Your task to perform on an android device: turn on priority inbox in the gmail app Image 0: 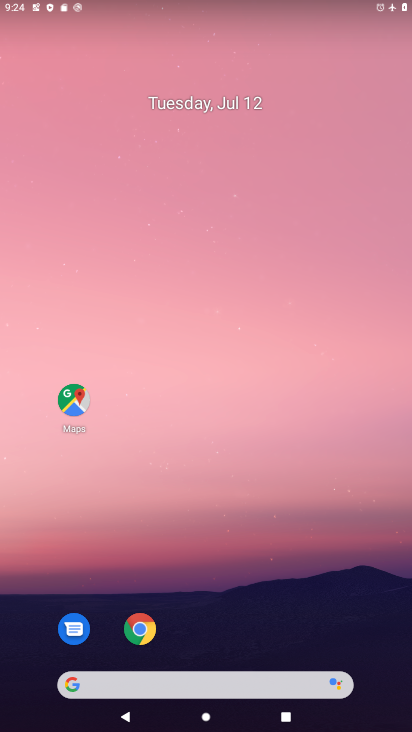
Step 0: drag from (259, 623) to (270, 251)
Your task to perform on an android device: turn on priority inbox in the gmail app Image 1: 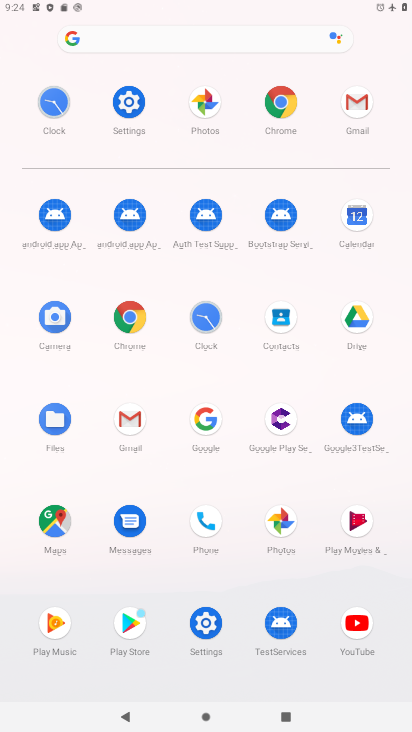
Step 1: click (363, 100)
Your task to perform on an android device: turn on priority inbox in the gmail app Image 2: 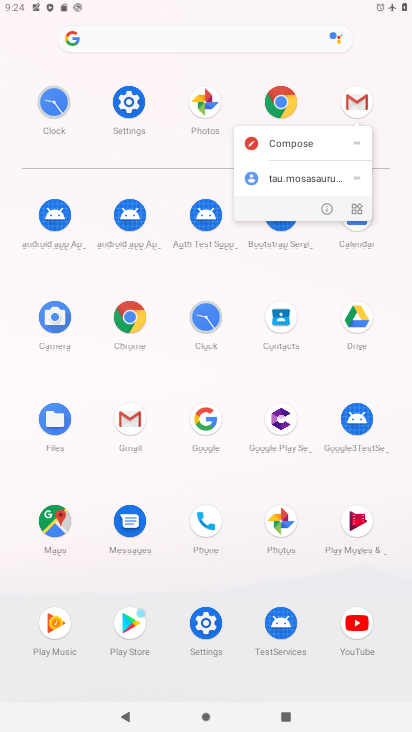
Step 2: click (360, 89)
Your task to perform on an android device: turn on priority inbox in the gmail app Image 3: 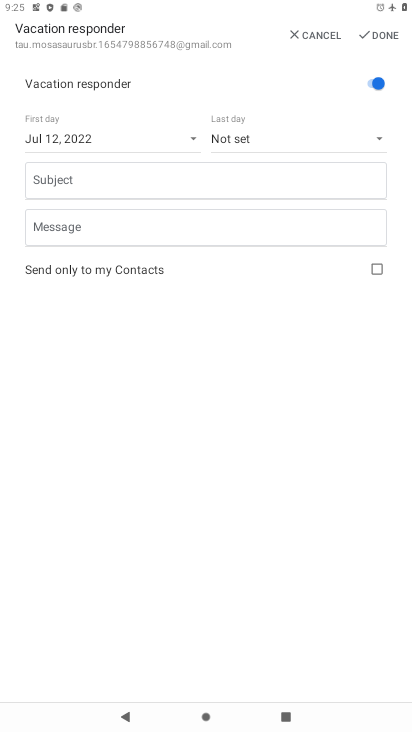
Step 3: click (298, 30)
Your task to perform on an android device: turn on priority inbox in the gmail app Image 4: 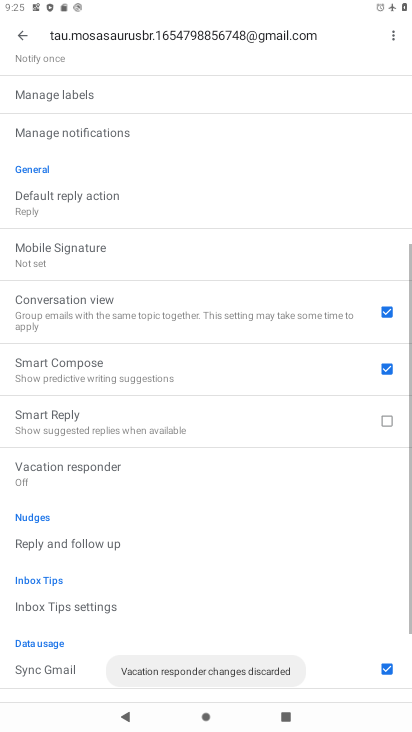
Step 4: drag from (105, 116) to (105, 525)
Your task to perform on an android device: turn on priority inbox in the gmail app Image 5: 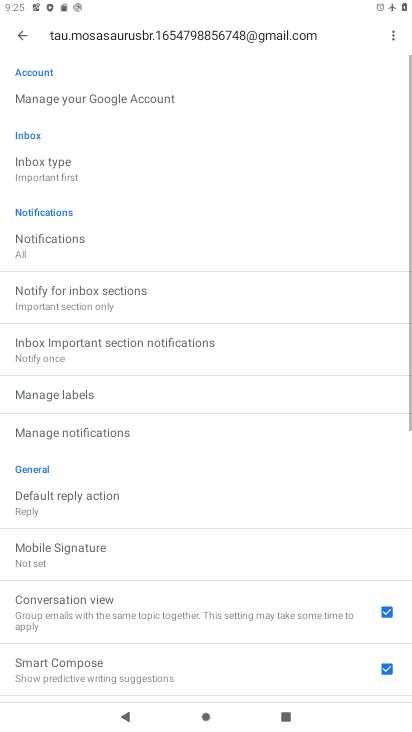
Step 5: click (78, 178)
Your task to perform on an android device: turn on priority inbox in the gmail app Image 6: 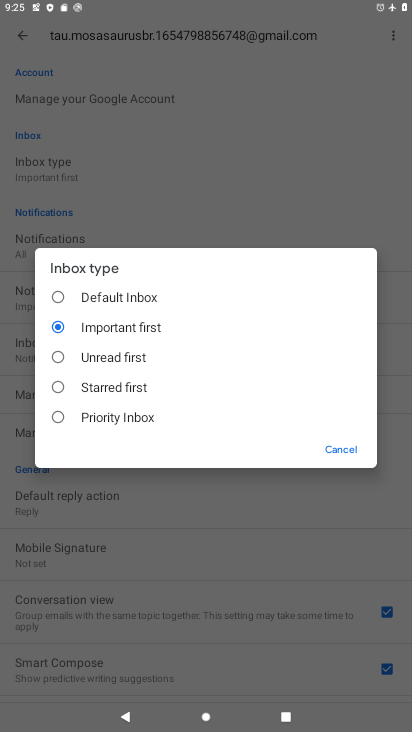
Step 6: click (126, 415)
Your task to perform on an android device: turn on priority inbox in the gmail app Image 7: 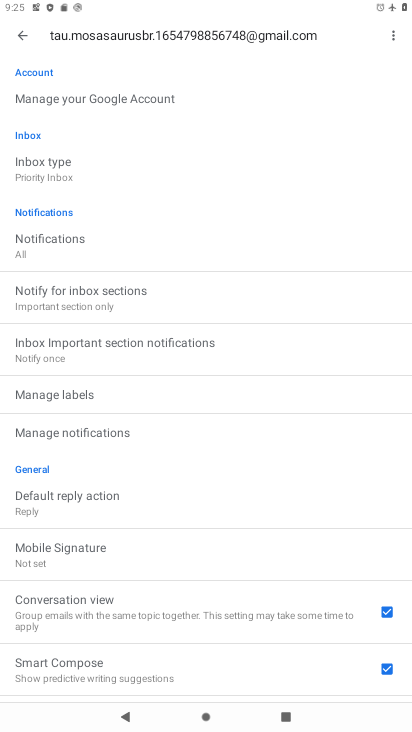
Step 7: task complete